Your task to perform on an android device: Open Youtube and go to the subscriptions tab Image 0: 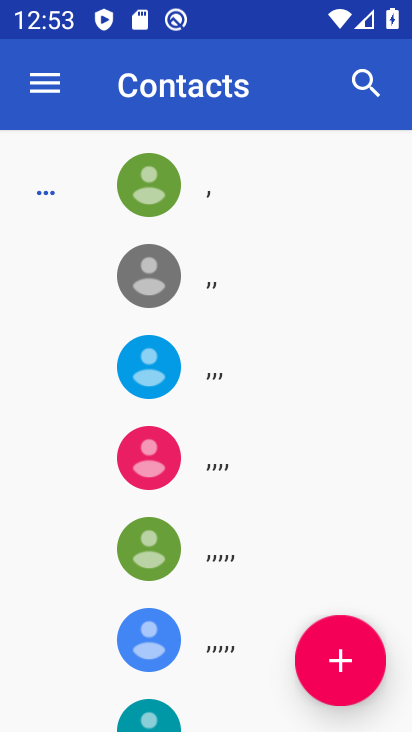
Step 0: press home button
Your task to perform on an android device: Open Youtube and go to the subscriptions tab Image 1: 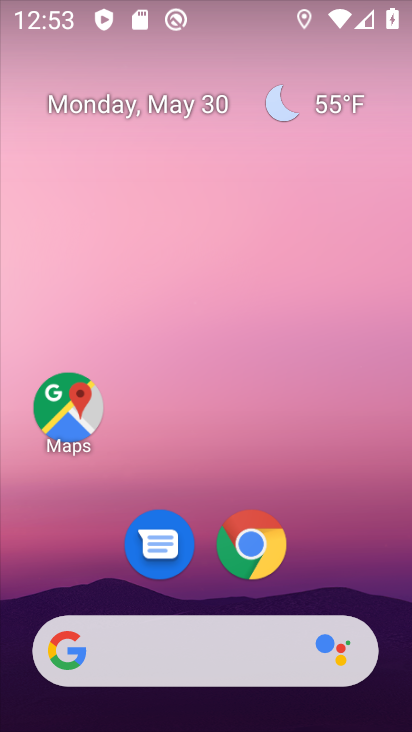
Step 1: drag from (351, 585) to (347, 10)
Your task to perform on an android device: Open Youtube and go to the subscriptions tab Image 2: 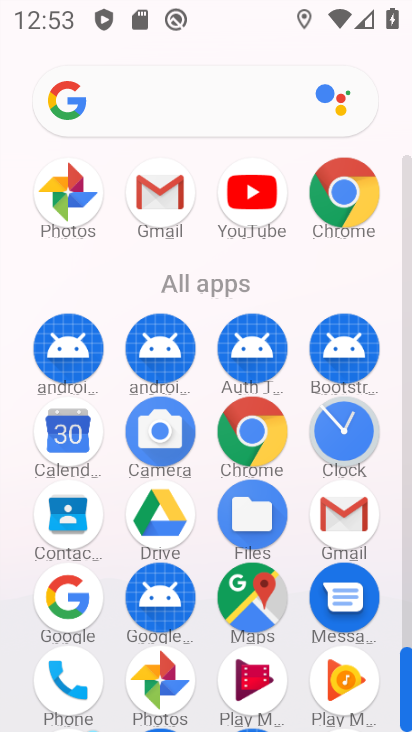
Step 2: click (255, 172)
Your task to perform on an android device: Open Youtube and go to the subscriptions tab Image 3: 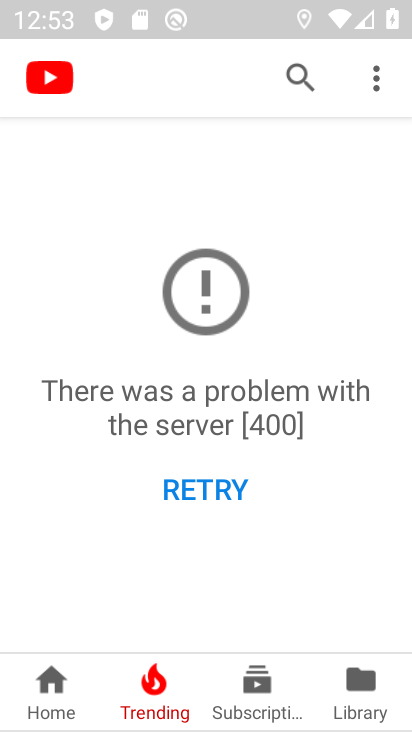
Step 3: click (261, 711)
Your task to perform on an android device: Open Youtube and go to the subscriptions tab Image 4: 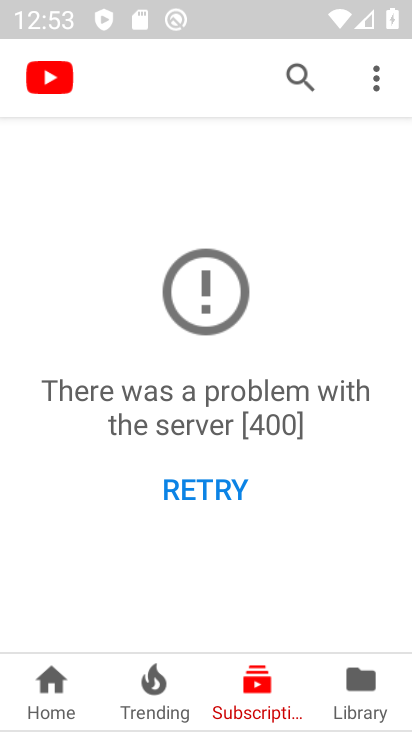
Step 4: task complete